Your task to perform on an android device: snooze an email in the gmail app Image 0: 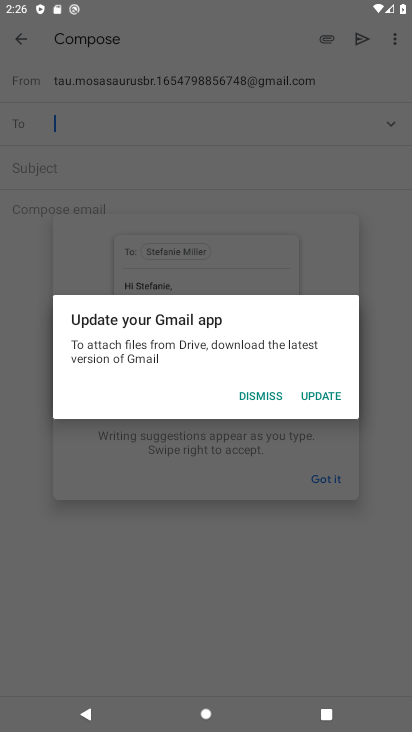
Step 0: press home button
Your task to perform on an android device: snooze an email in the gmail app Image 1: 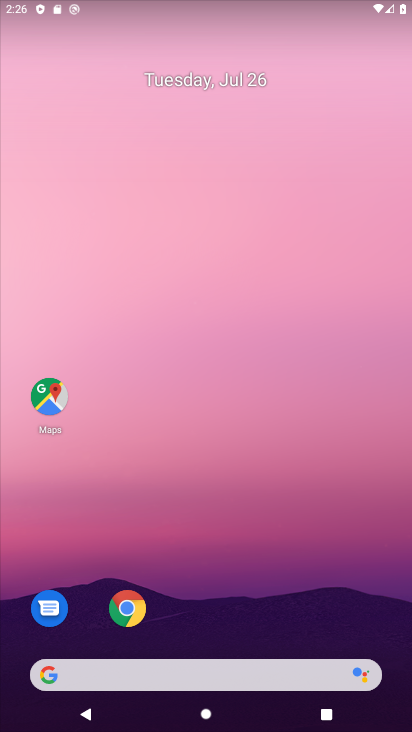
Step 1: drag from (214, 615) to (206, 202)
Your task to perform on an android device: snooze an email in the gmail app Image 2: 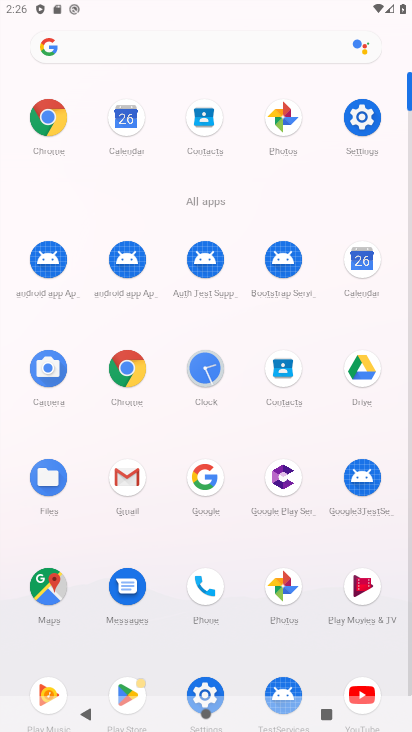
Step 2: click (127, 480)
Your task to perform on an android device: snooze an email in the gmail app Image 3: 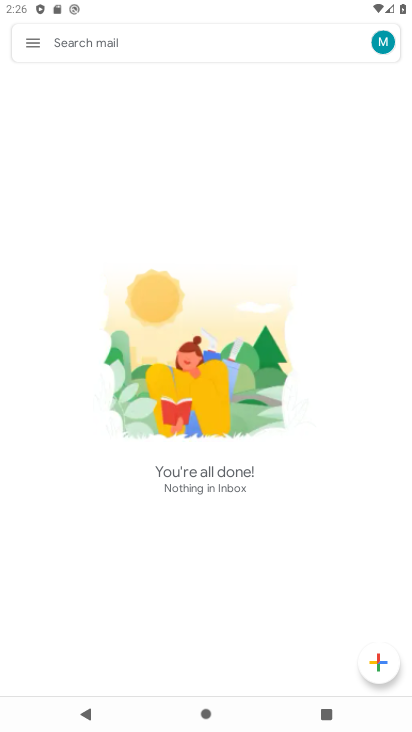
Step 3: click (33, 36)
Your task to perform on an android device: snooze an email in the gmail app Image 4: 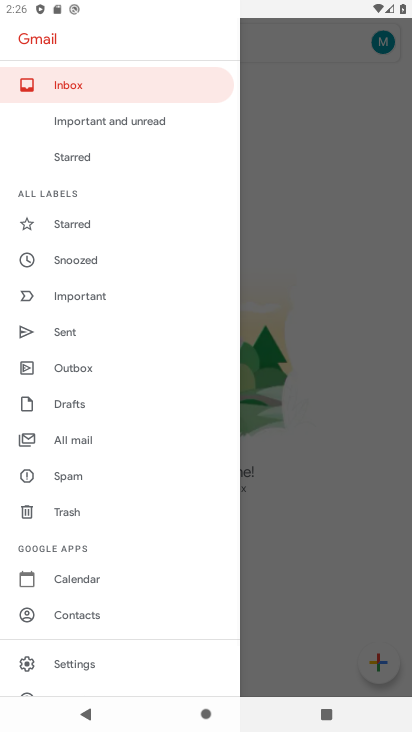
Step 4: click (94, 262)
Your task to perform on an android device: snooze an email in the gmail app Image 5: 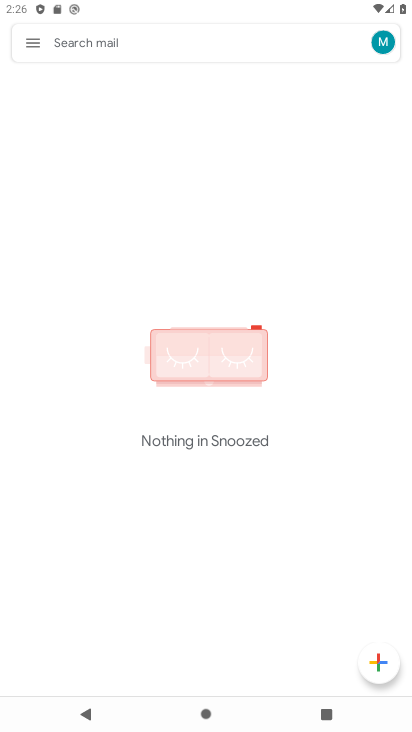
Step 5: task complete